Your task to perform on an android device: Search for Mexican restaurants on Maps Image 0: 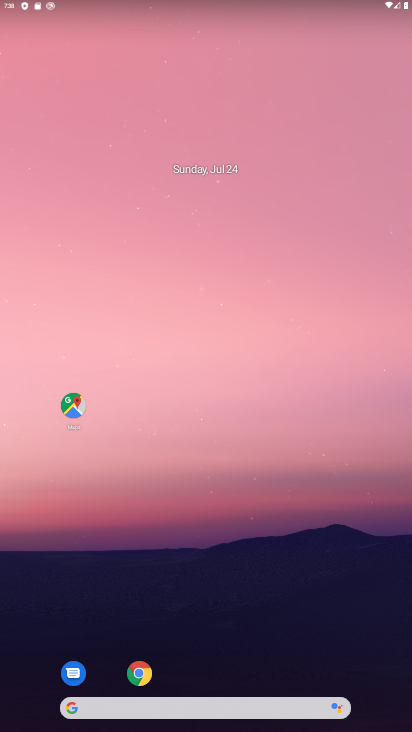
Step 0: drag from (164, 635) to (222, 194)
Your task to perform on an android device: Search for Mexican restaurants on Maps Image 1: 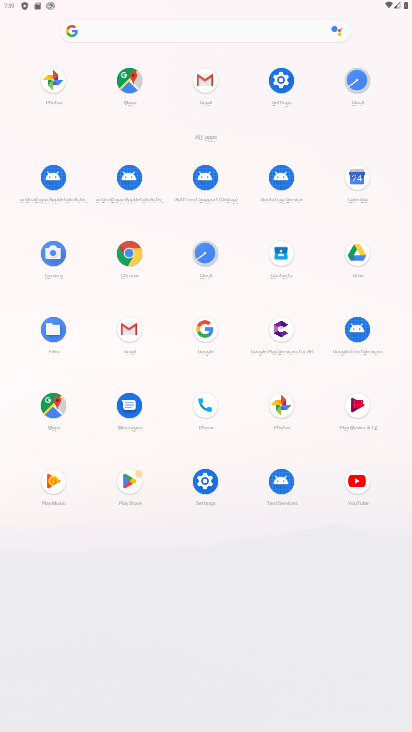
Step 1: click (48, 403)
Your task to perform on an android device: Search for Mexican restaurants on Maps Image 2: 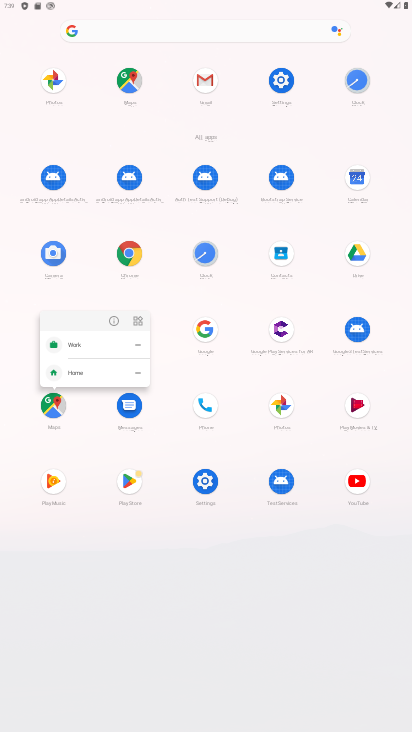
Step 2: click (111, 323)
Your task to perform on an android device: Search for Mexican restaurants on Maps Image 3: 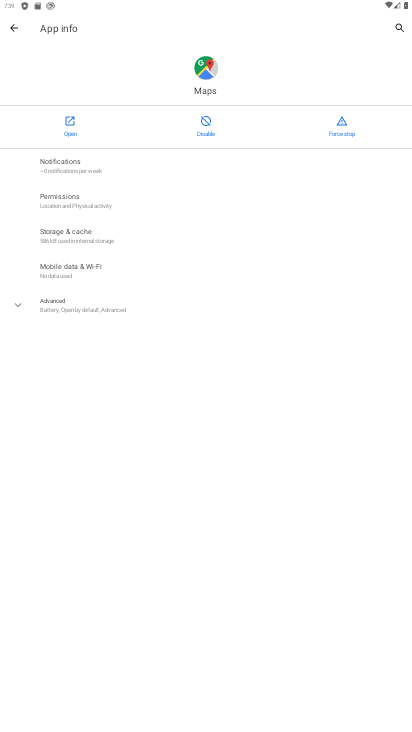
Step 3: click (64, 123)
Your task to perform on an android device: Search for Mexican restaurants on Maps Image 4: 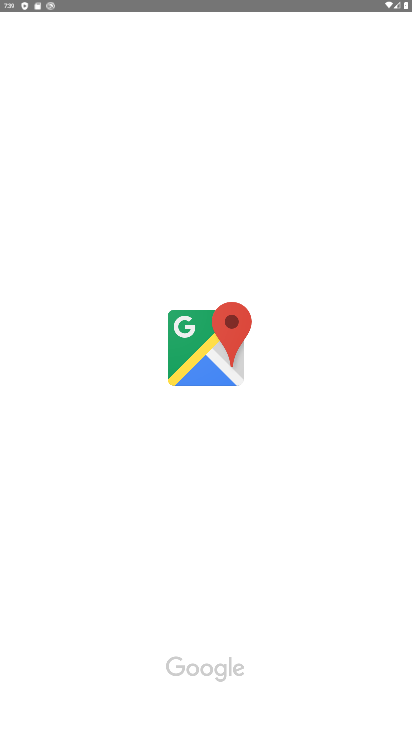
Step 4: drag from (193, 553) to (220, 286)
Your task to perform on an android device: Search for Mexican restaurants on Maps Image 5: 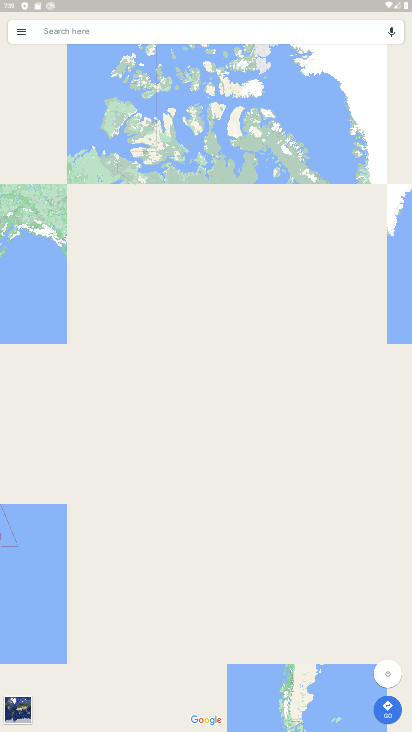
Step 5: drag from (191, 575) to (190, 287)
Your task to perform on an android device: Search for Mexican restaurants on Maps Image 6: 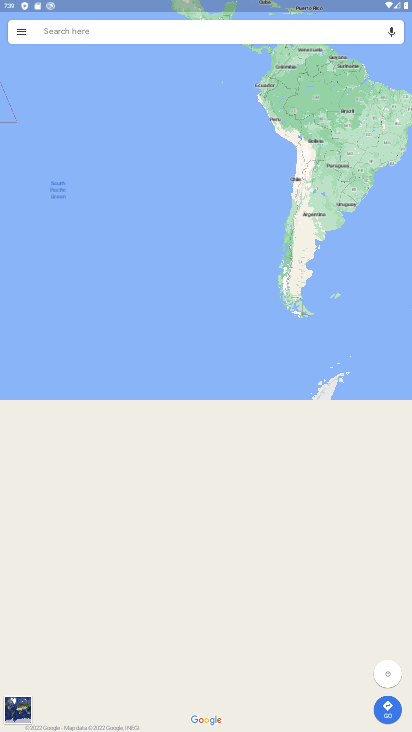
Step 6: drag from (167, 161) to (220, 709)
Your task to perform on an android device: Search for Mexican restaurants on Maps Image 7: 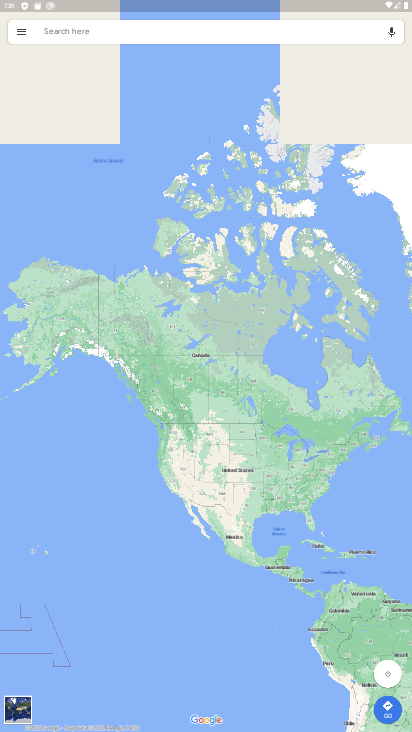
Step 7: click (153, 40)
Your task to perform on an android device: Search for Mexican restaurants on Maps Image 8: 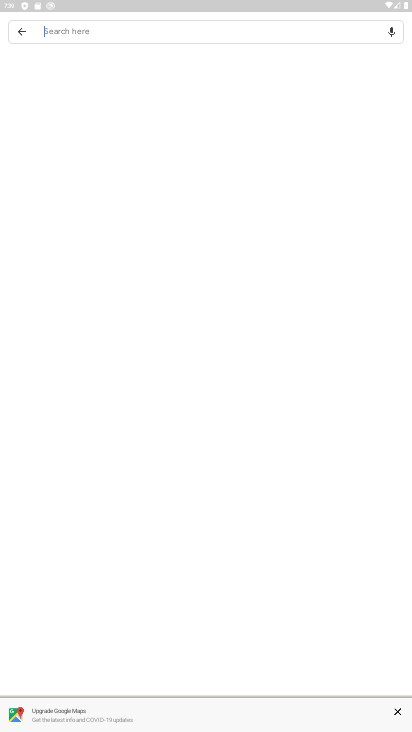
Step 8: click (110, 28)
Your task to perform on an android device: Search for Mexican restaurants on Maps Image 9: 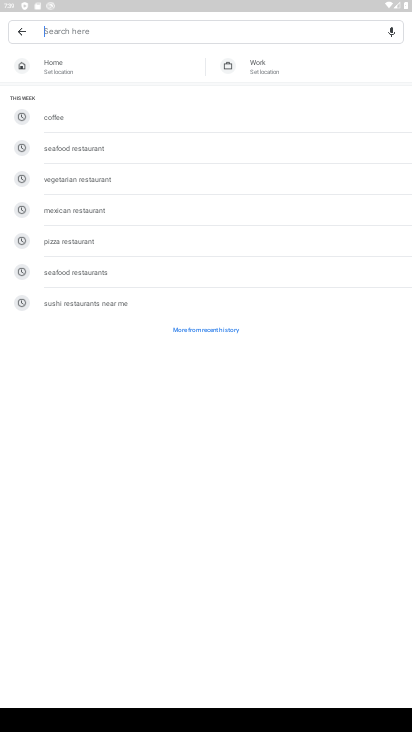
Step 9: click (74, 217)
Your task to perform on an android device: Search for Mexican restaurants on Maps Image 10: 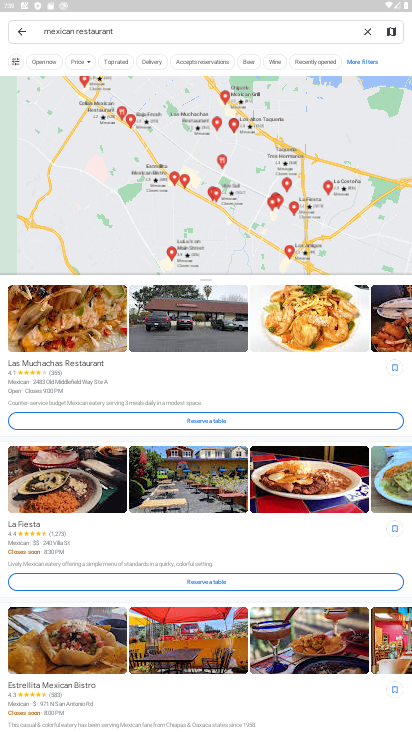
Step 10: task complete